Your task to perform on an android device: turn off translation in the chrome app Image 0: 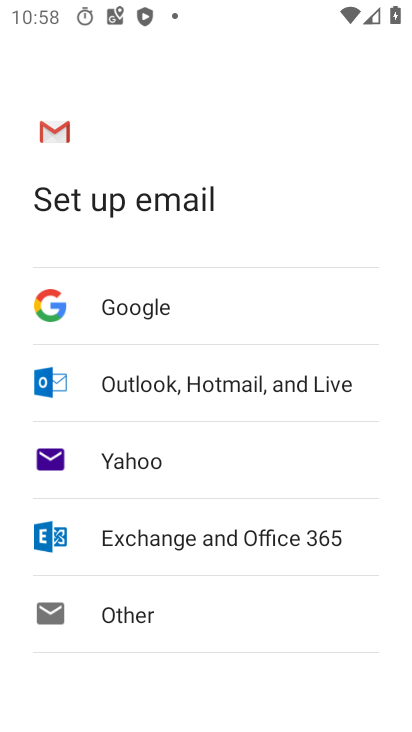
Step 0: press home button
Your task to perform on an android device: turn off translation in the chrome app Image 1: 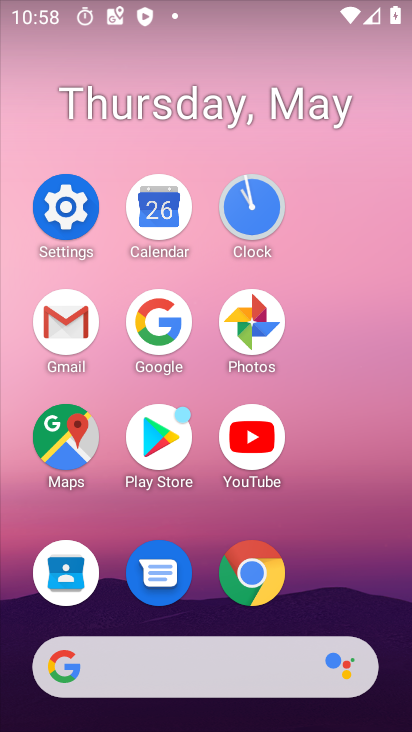
Step 1: click (235, 571)
Your task to perform on an android device: turn off translation in the chrome app Image 2: 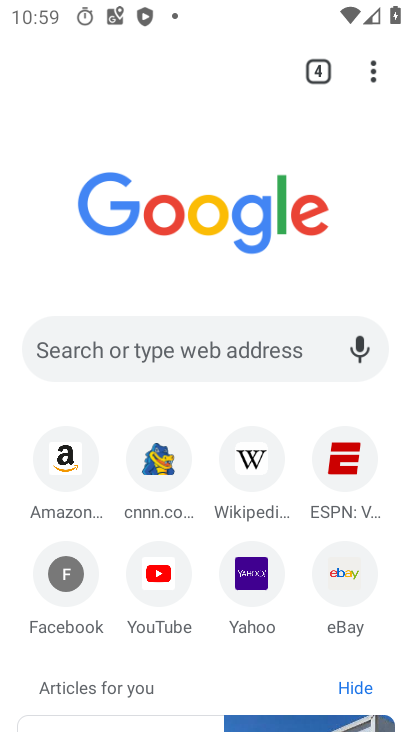
Step 2: click (368, 81)
Your task to perform on an android device: turn off translation in the chrome app Image 3: 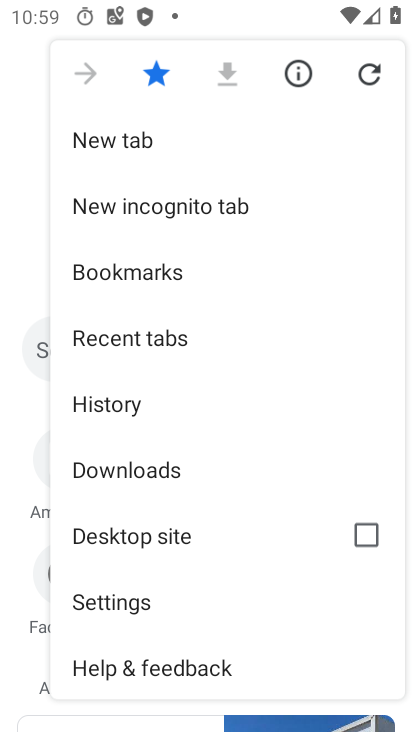
Step 3: drag from (264, 542) to (273, 196)
Your task to perform on an android device: turn off translation in the chrome app Image 4: 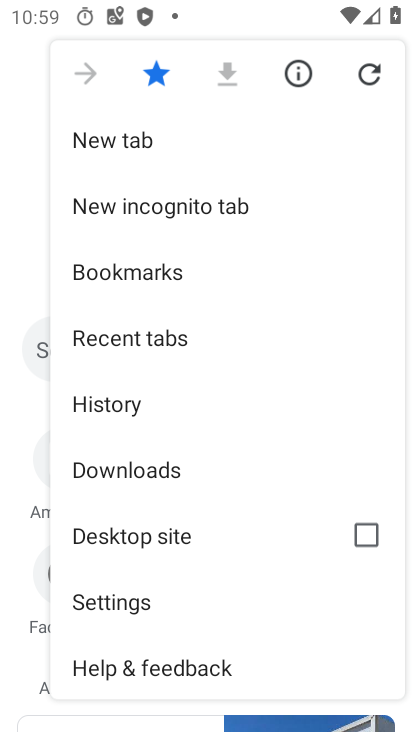
Step 4: click (158, 600)
Your task to perform on an android device: turn off translation in the chrome app Image 5: 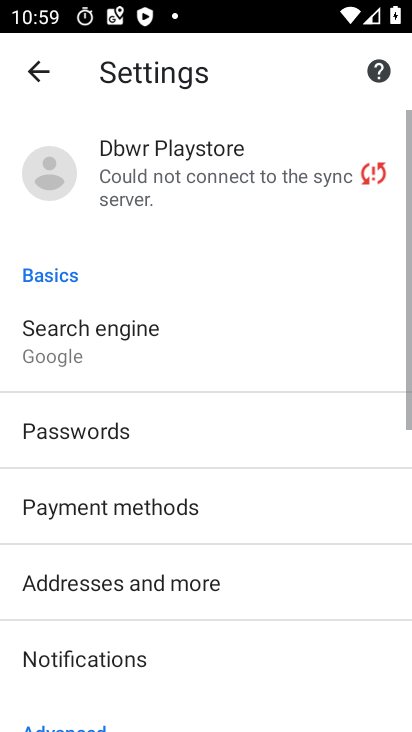
Step 5: drag from (158, 600) to (200, 262)
Your task to perform on an android device: turn off translation in the chrome app Image 6: 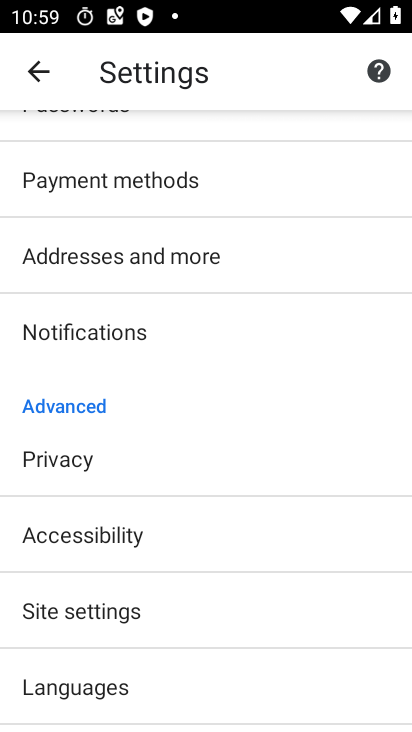
Step 6: click (163, 673)
Your task to perform on an android device: turn off translation in the chrome app Image 7: 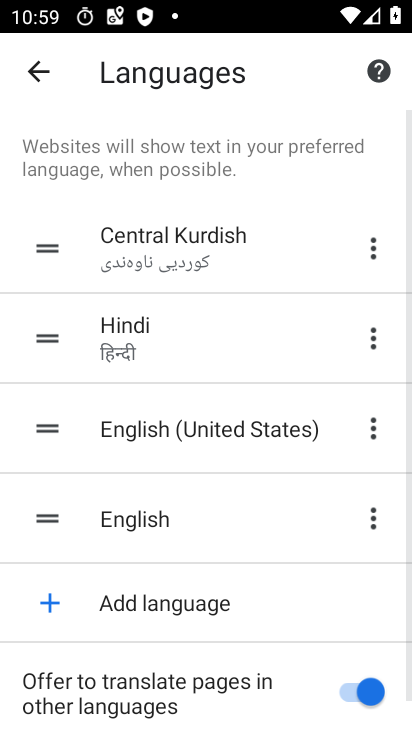
Step 7: click (375, 694)
Your task to perform on an android device: turn off translation in the chrome app Image 8: 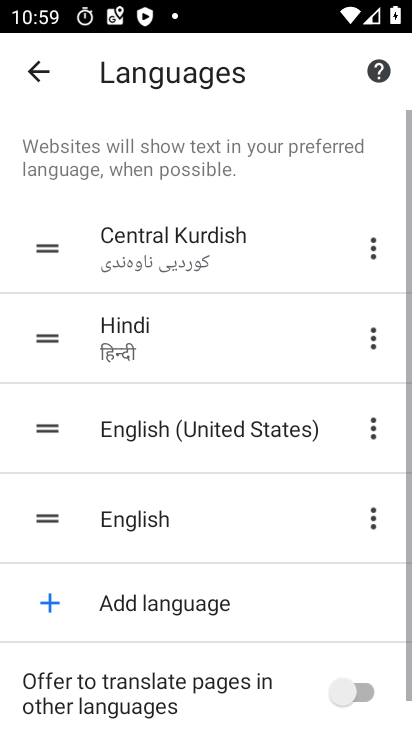
Step 8: task complete